Your task to perform on an android device: turn off smart reply in the gmail app Image 0: 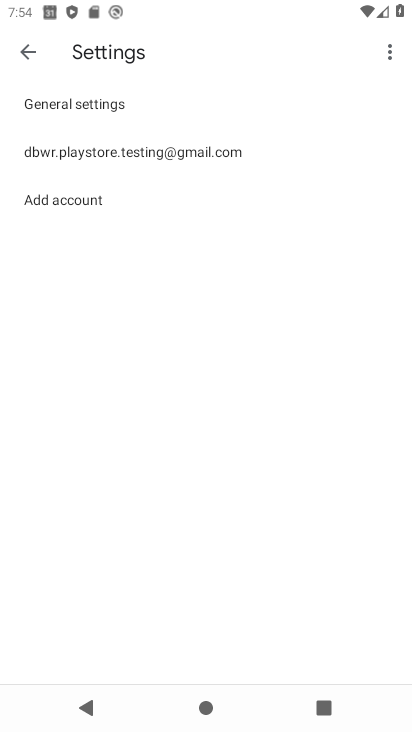
Step 0: press home button
Your task to perform on an android device: turn off smart reply in the gmail app Image 1: 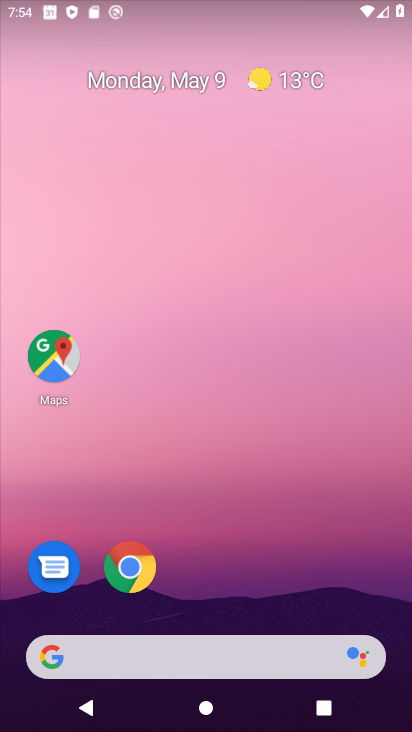
Step 1: drag from (251, 548) to (313, 1)
Your task to perform on an android device: turn off smart reply in the gmail app Image 2: 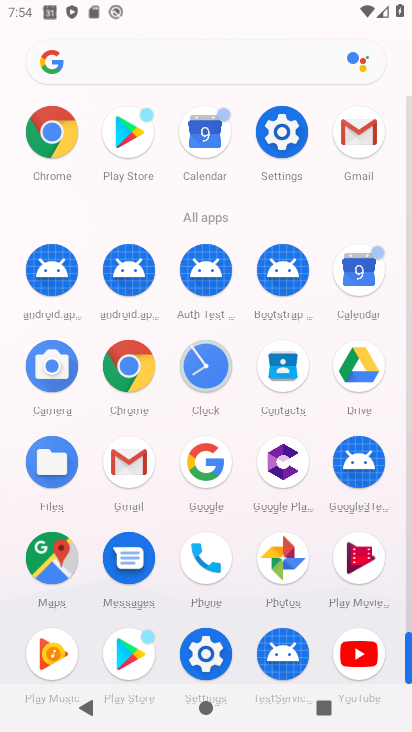
Step 2: click (361, 127)
Your task to perform on an android device: turn off smart reply in the gmail app Image 3: 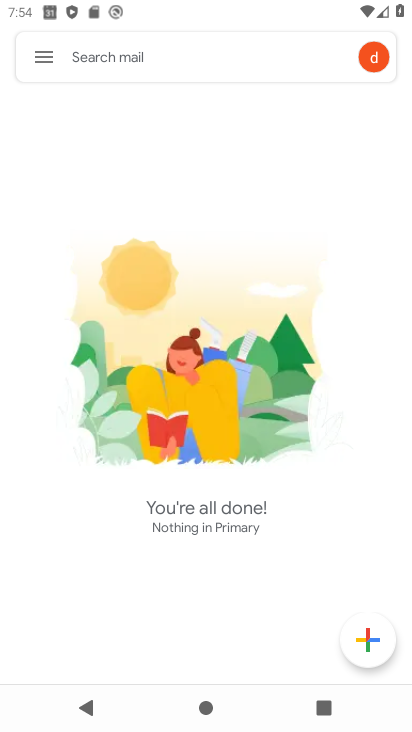
Step 3: click (42, 51)
Your task to perform on an android device: turn off smart reply in the gmail app Image 4: 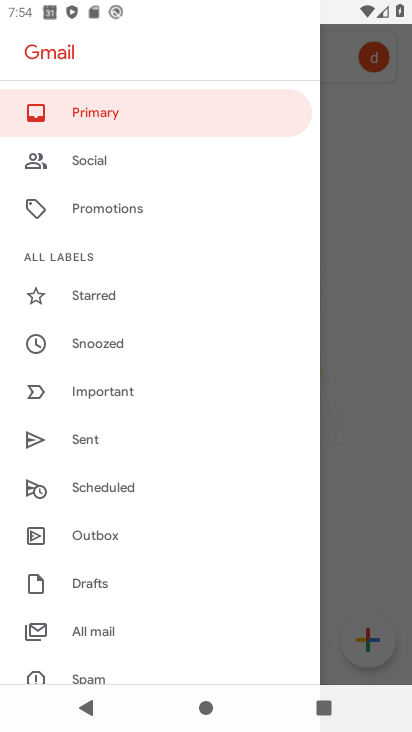
Step 4: drag from (169, 581) to (204, 226)
Your task to perform on an android device: turn off smart reply in the gmail app Image 5: 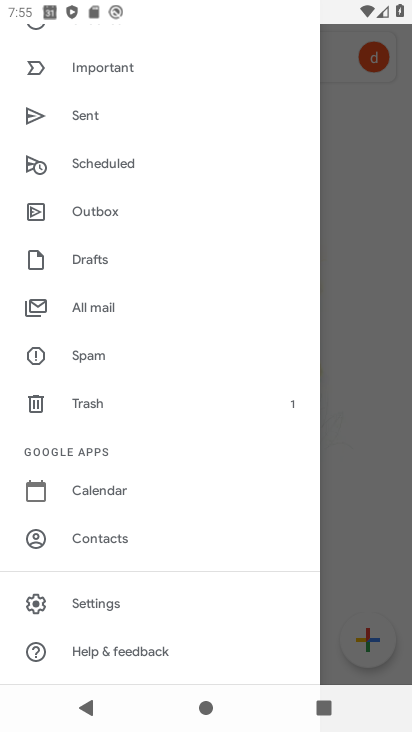
Step 5: click (95, 591)
Your task to perform on an android device: turn off smart reply in the gmail app Image 6: 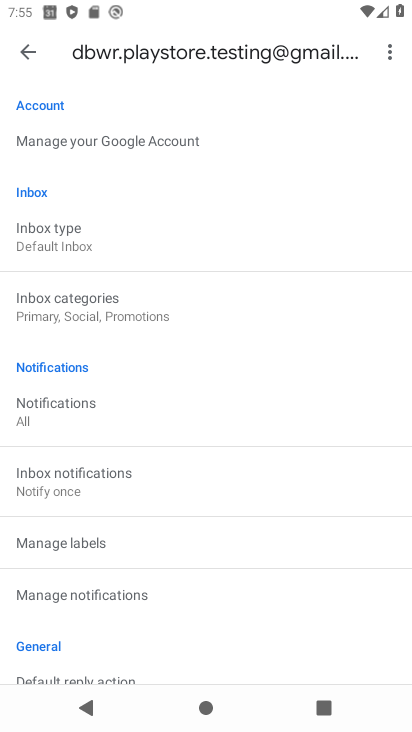
Step 6: drag from (233, 615) to (229, 222)
Your task to perform on an android device: turn off smart reply in the gmail app Image 7: 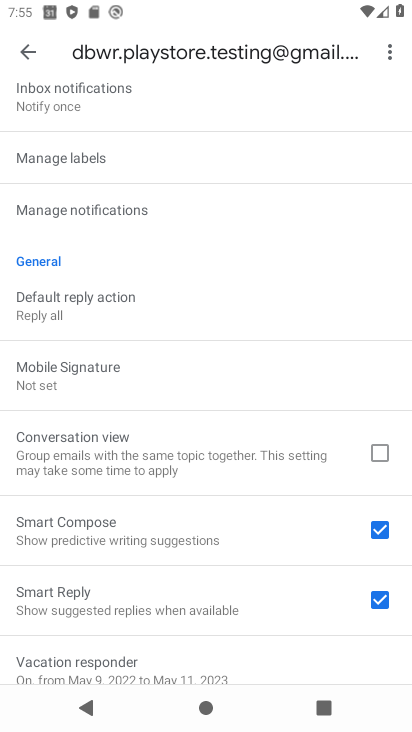
Step 7: click (379, 594)
Your task to perform on an android device: turn off smart reply in the gmail app Image 8: 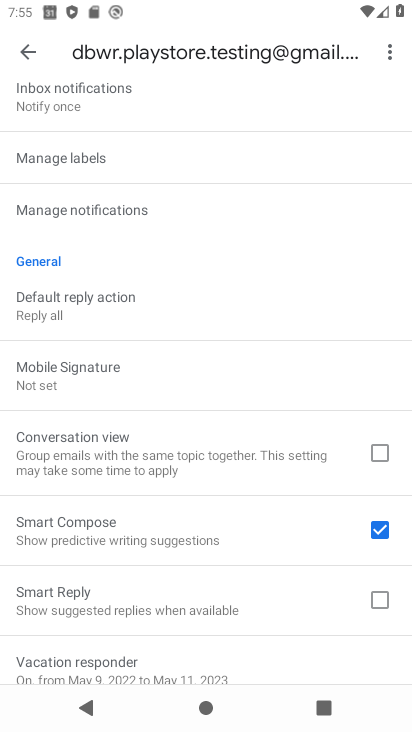
Step 8: task complete